Your task to perform on an android device: Open the phone app and click the voicemail tab. Image 0: 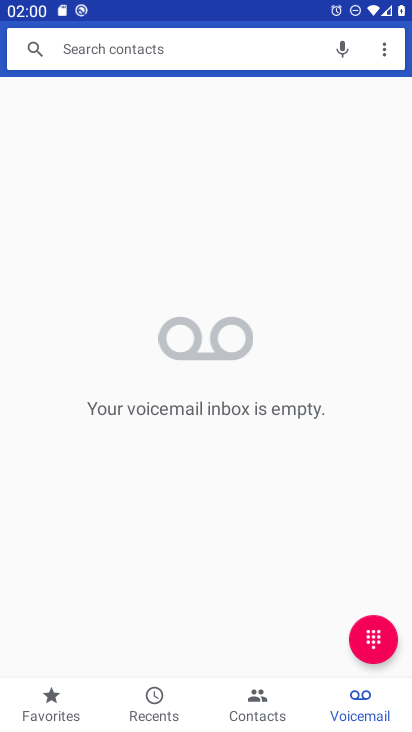
Step 0: press home button
Your task to perform on an android device: Open the phone app and click the voicemail tab. Image 1: 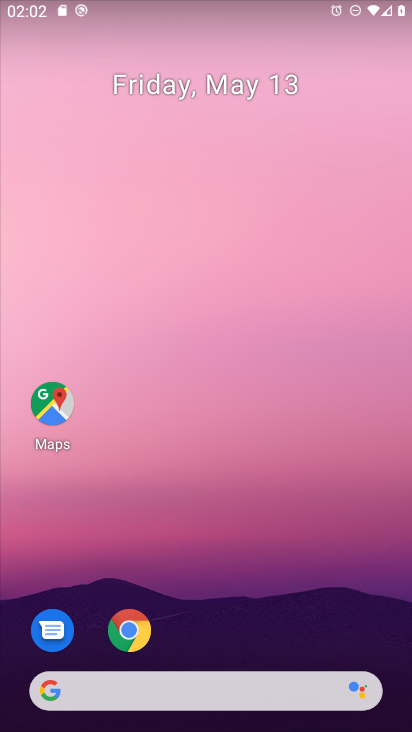
Step 1: drag from (193, 701) to (291, 310)
Your task to perform on an android device: Open the phone app and click the voicemail tab. Image 2: 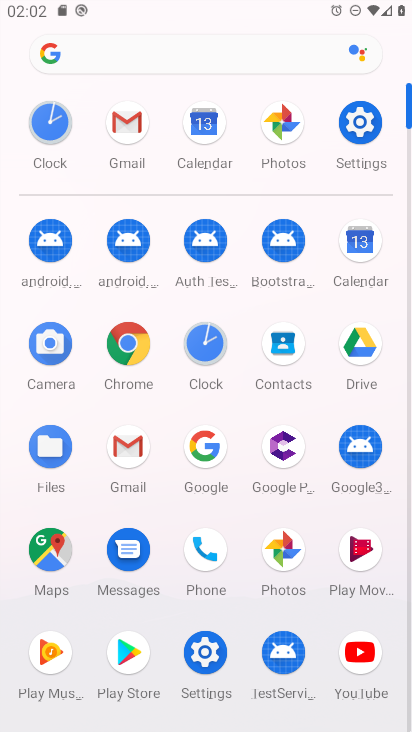
Step 2: click (196, 559)
Your task to perform on an android device: Open the phone app and click the voicemail tab. Image 3: 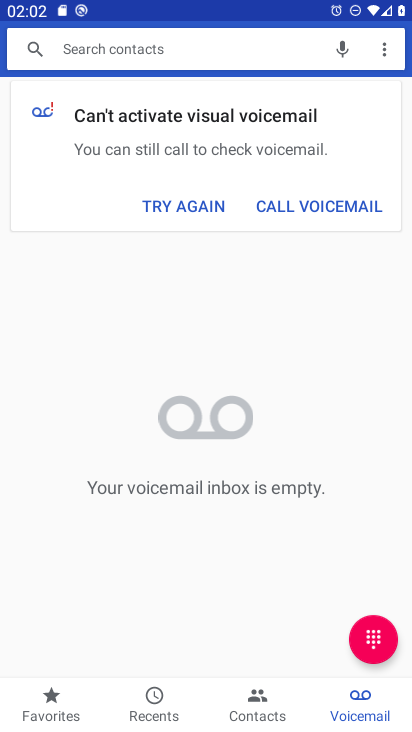
Step 3: click (341, 702)
Your task to perform on an android device: Open the phone app and click the voicemail tab. Image 4: 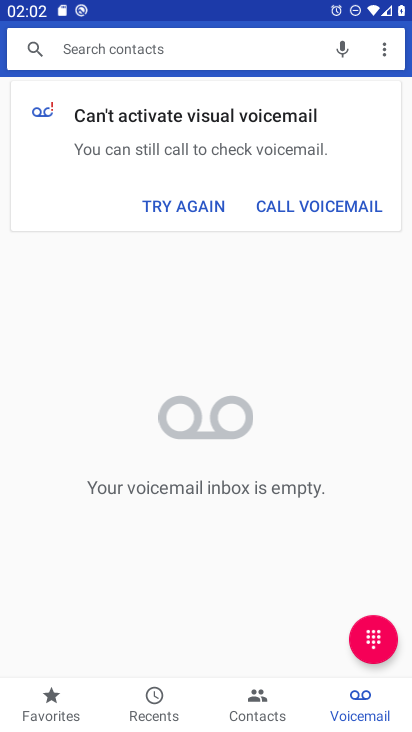
Step 4: task complete